Your task to perform on an android device: read, delete, or share a saved page in the chrome app Image 0: 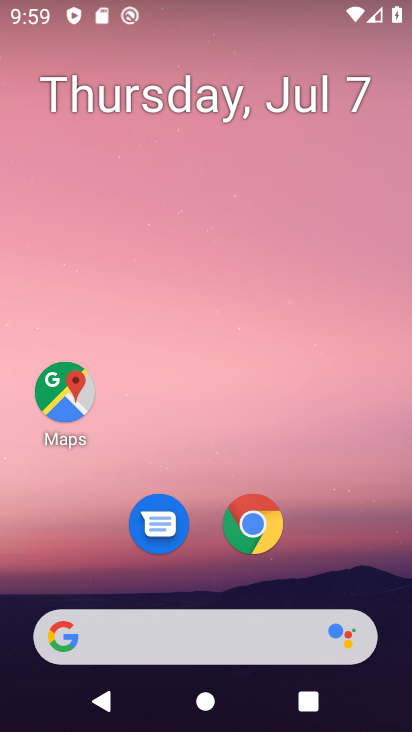
Step 0: drag from (242, 424) to (273, 140)
Your task to perform on an android device: read, delete, or share a saved page in the chrome app Image 1: 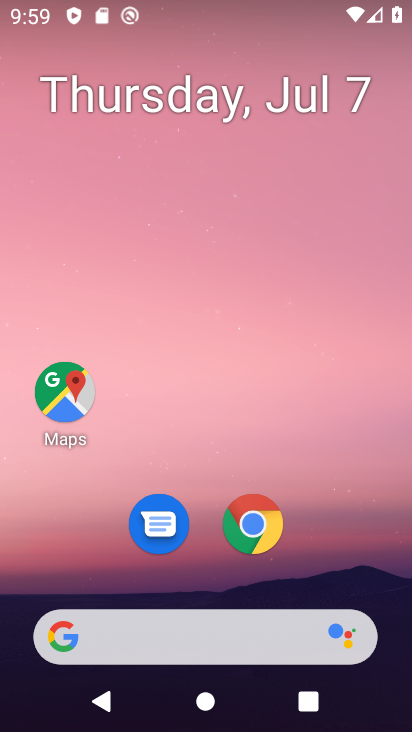
Step 1: click (262, 511)
Your task to perform on an android device: read, delete, or share a saved page in the chrome app Image 2: 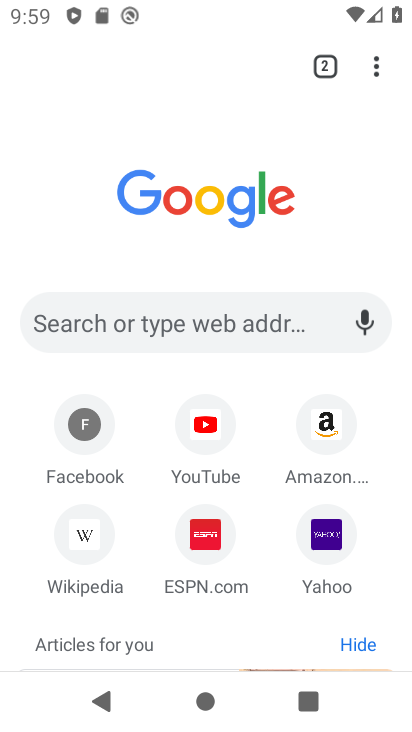
Step 2: click (375, 62)
Your task to perform on an android device: read, delete, or share a saved page in the chrome app Image 3: 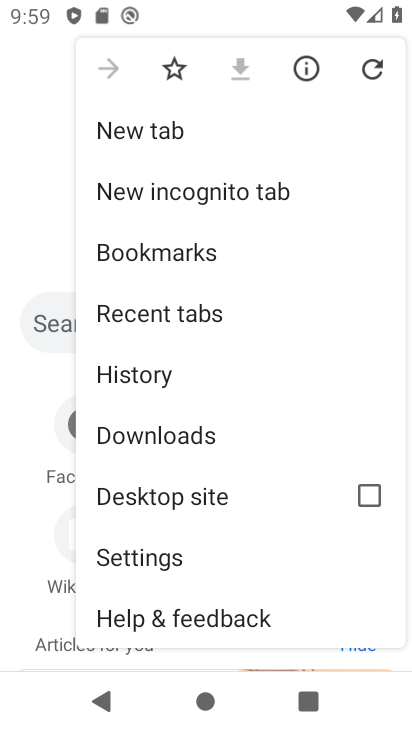
Step 3: click (151, 431)
Your task to perform on an android device: read, delete, or share a saved page in the chrome app Image 4: 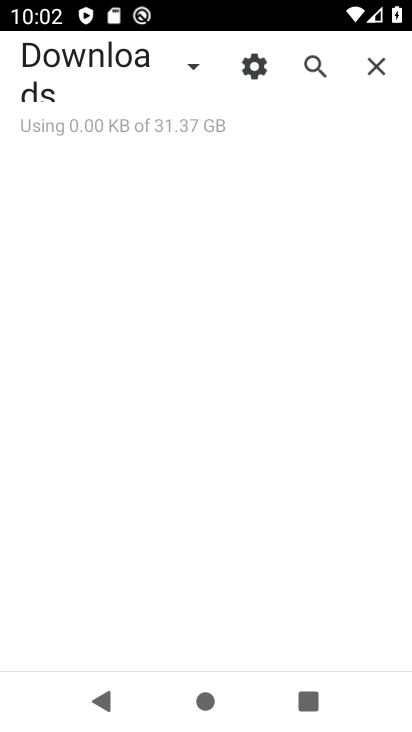
Step 4: task complete